Your task to perform on an android device: uninstall "Lyft - Rideshare, Bikes, Scooters & Transit" Image 0: 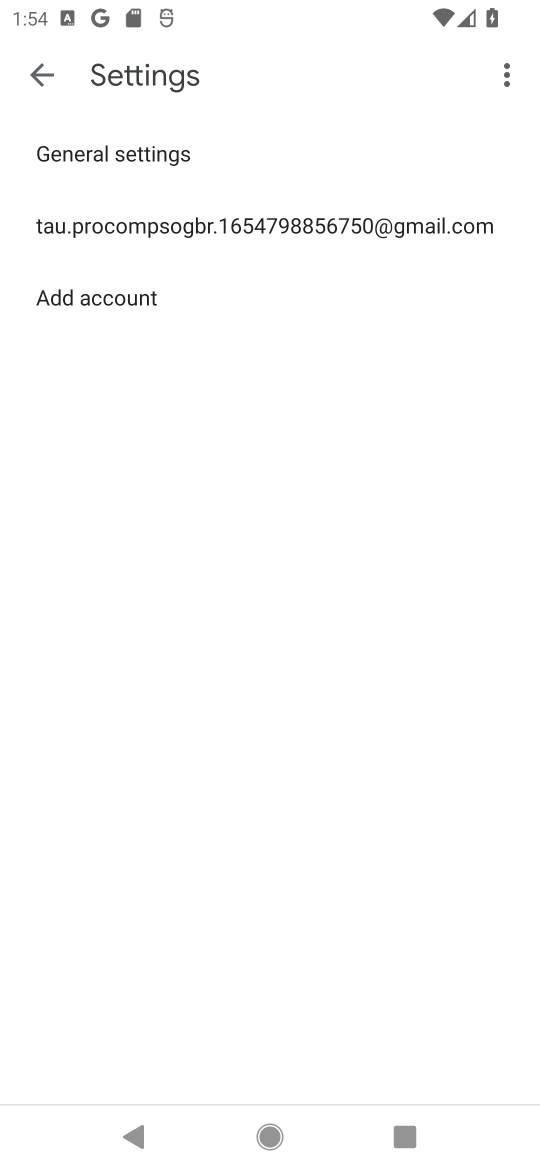
Step 0: press back button
Your task to perform on an android device: uninstall "Lyft - Rideshare, Bikes, Scooters & Transit" Image 1: 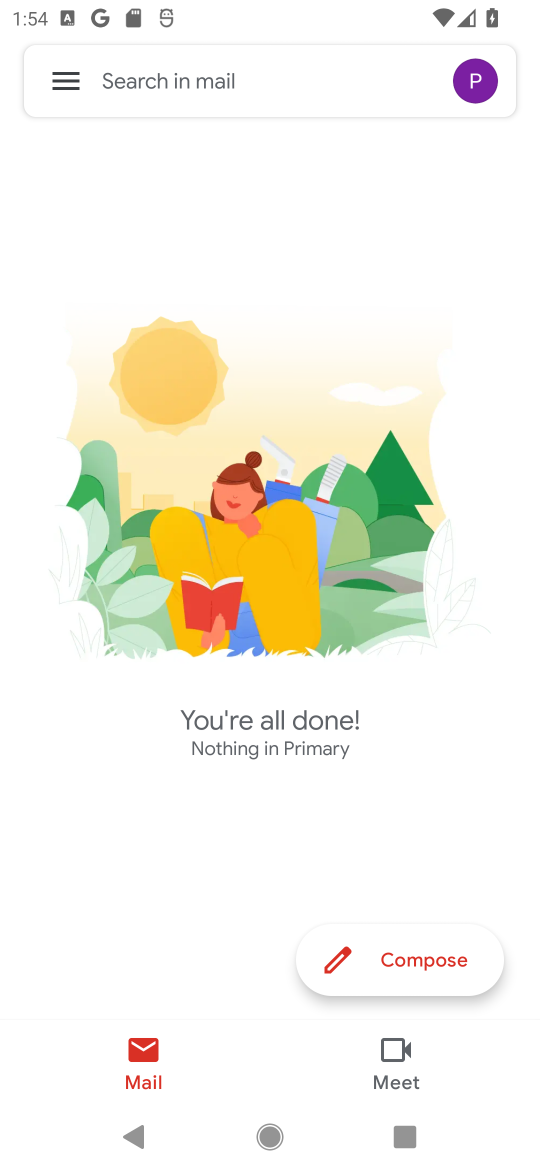
Step 1: press back button
Your task to perform on an android device: uninstall "Lyft - Rideshare, Bikes, Scooters & Transit" Image 2: 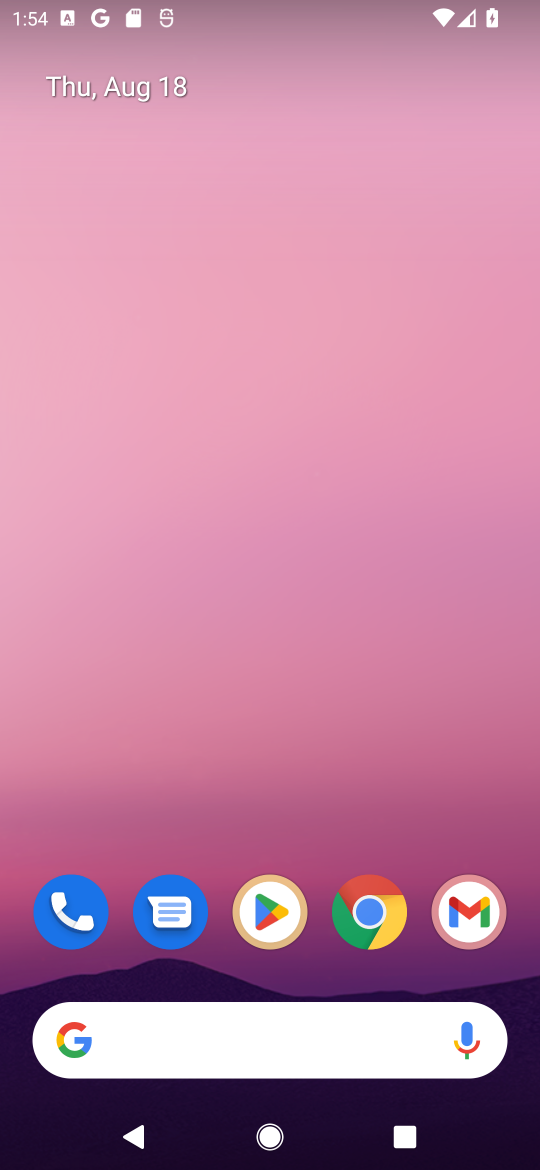
Step 2: click (263, 920)
Your task to perform on an android device: uninstall "Lyft - Rideshare, Bikes, Scooters & Transit" Image 3: 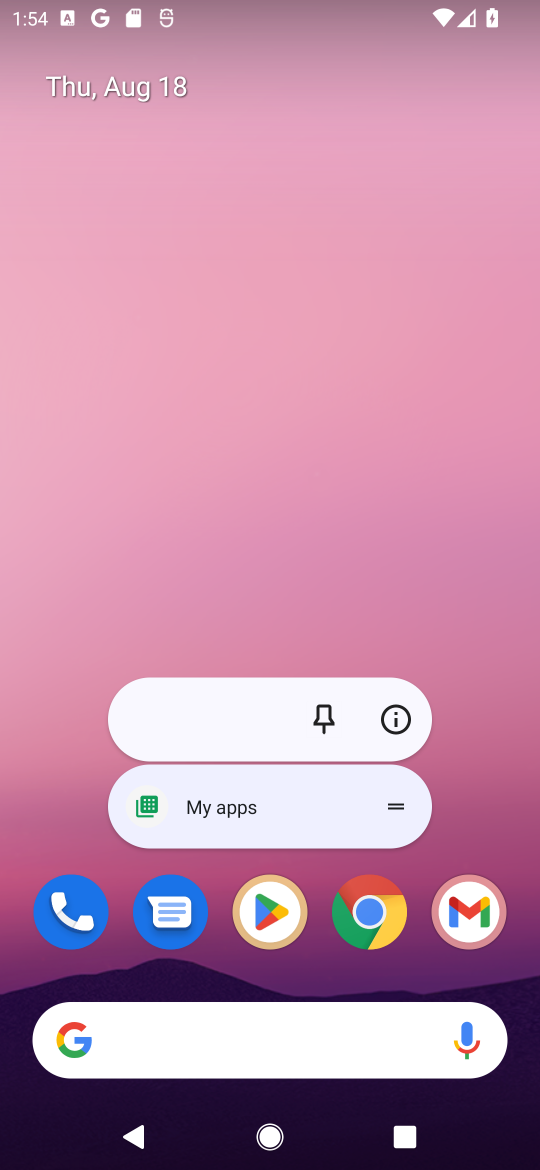
Step 3: click (269, 920)
Your task to perform on an android device: uninstall "Lyft - Rideshare, Bikes, Scooters & Transit" Image 4: 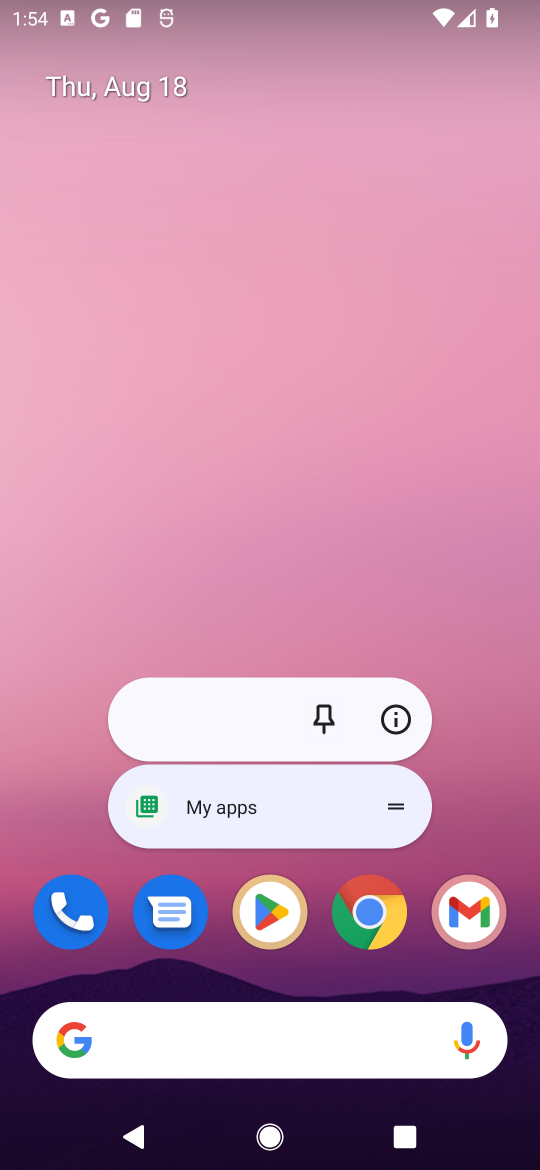
Step 4: click (266, 905)
Your task to perform on an android device: uninstall "Lyft - Rideshare, Bikes, Scooters & Transit" Image 5: 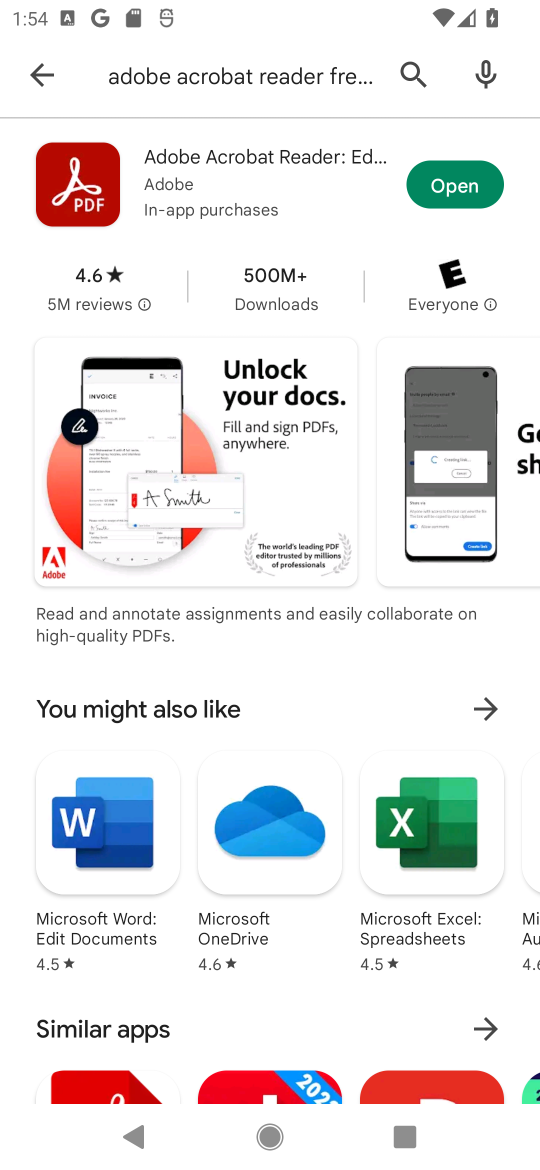
Step 5: click (416, 69)
Your task to perform on an android device: uninstall "Lyft - Rideshare, Bikes, Scooters & Transit" Image 6: 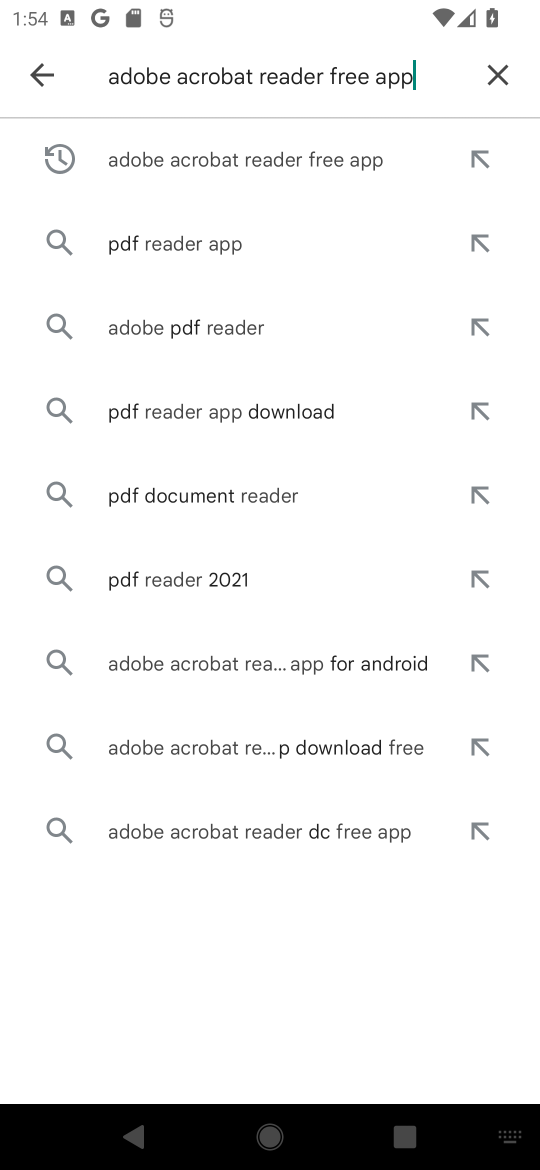
Step 6: click (488, 73)
Your task to perform on an android device: uninstall "Lyft - Rideshare, Bikes, Scooters & Transit" Image 7: 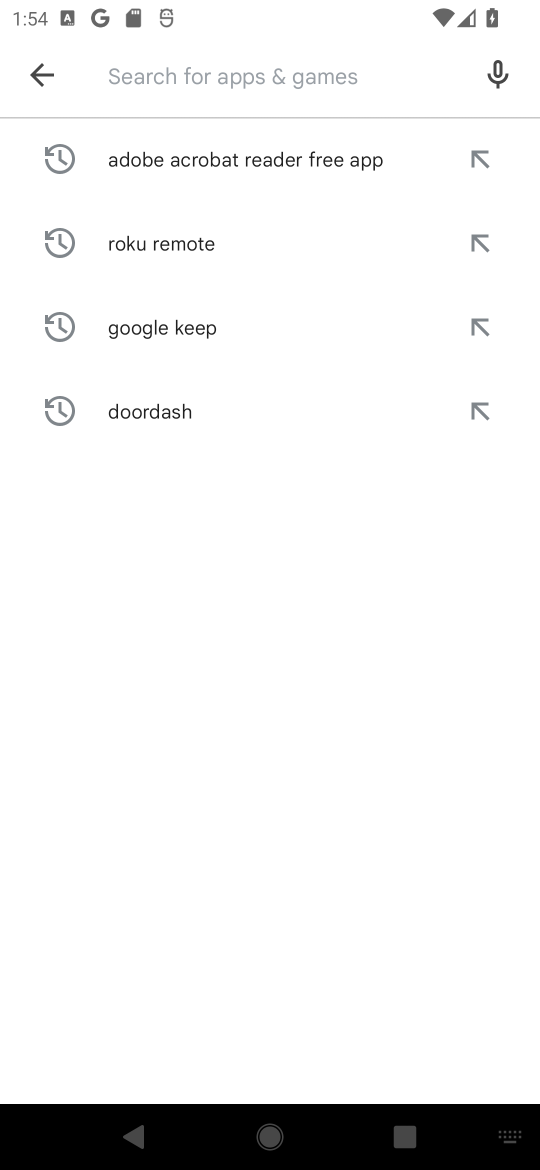
Step 7: click (228, 84)
Your task to perform on an android device: uninstall "Lyft - Rideshare, Bikes, Scooters & Transit" Image 8: 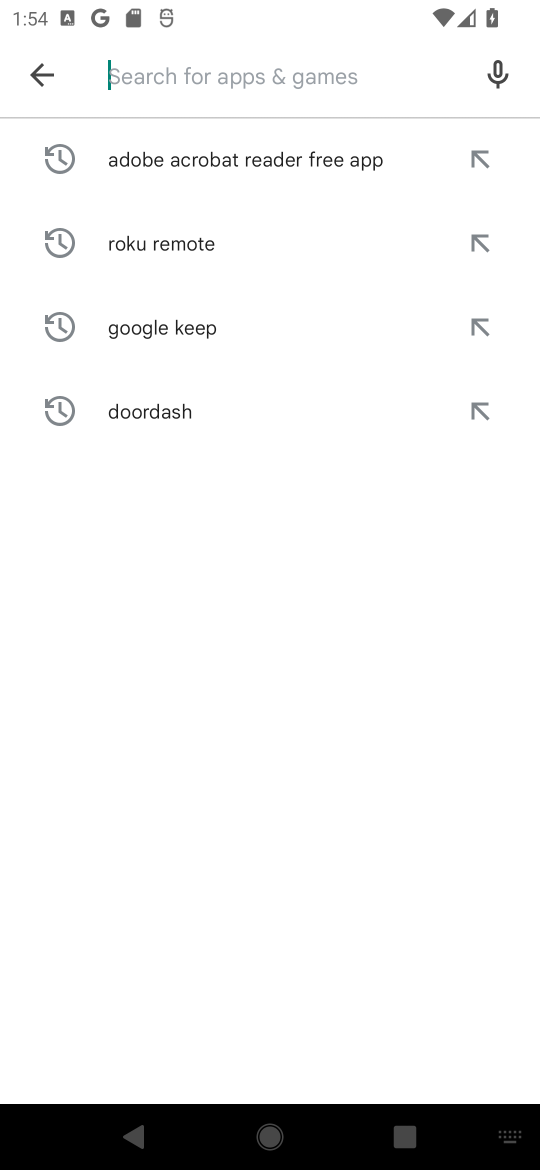
Step 8: type "lyft"
Your task to perform on an android device: uninstall "Lyft - Rideshare, Bikes, Scooters & Transit" Image 9: 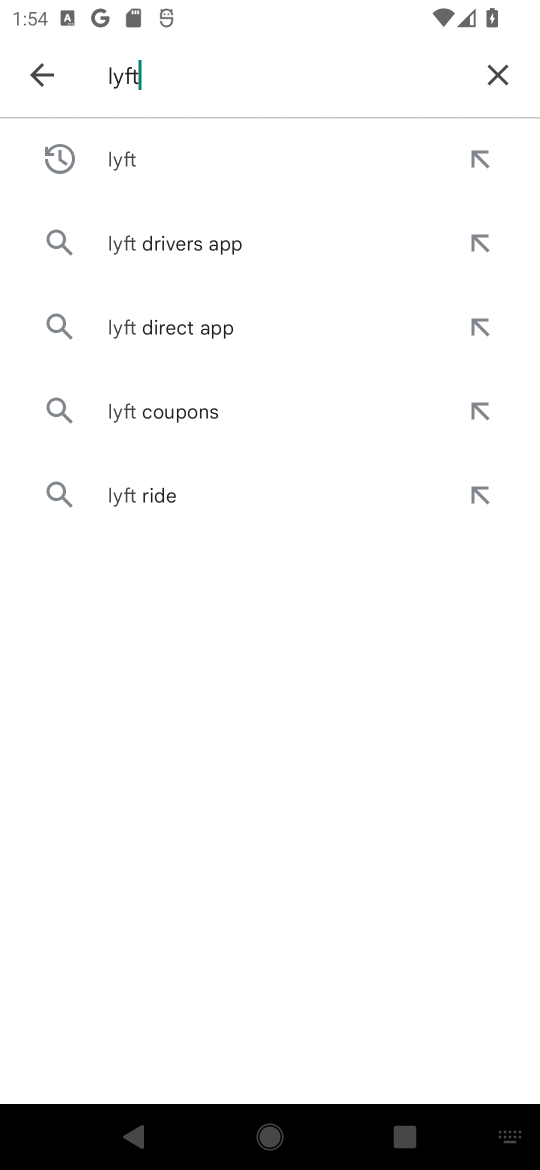
Step 9: click (110, 149)
Your task to perform on an android device: uninstall "Lyft - Rideshare, Bikes, Scooters & Transit" Image 10: 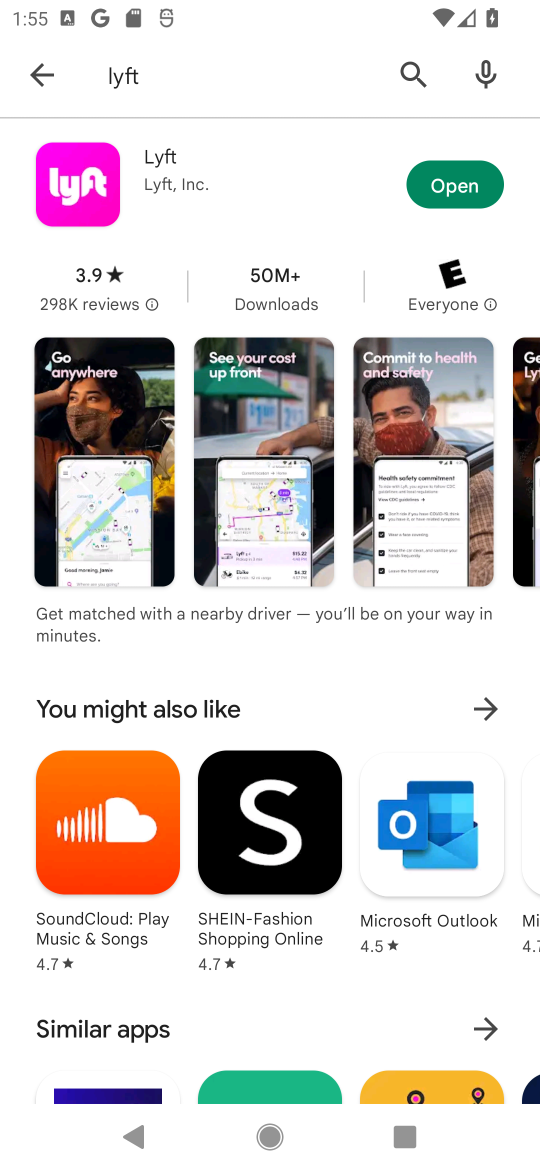
Step 10: click (167, 161)
Your task to perform on an android device: uninstall "Lyft - Rideshare, Bikes, Scooters & Transit" Image 11: 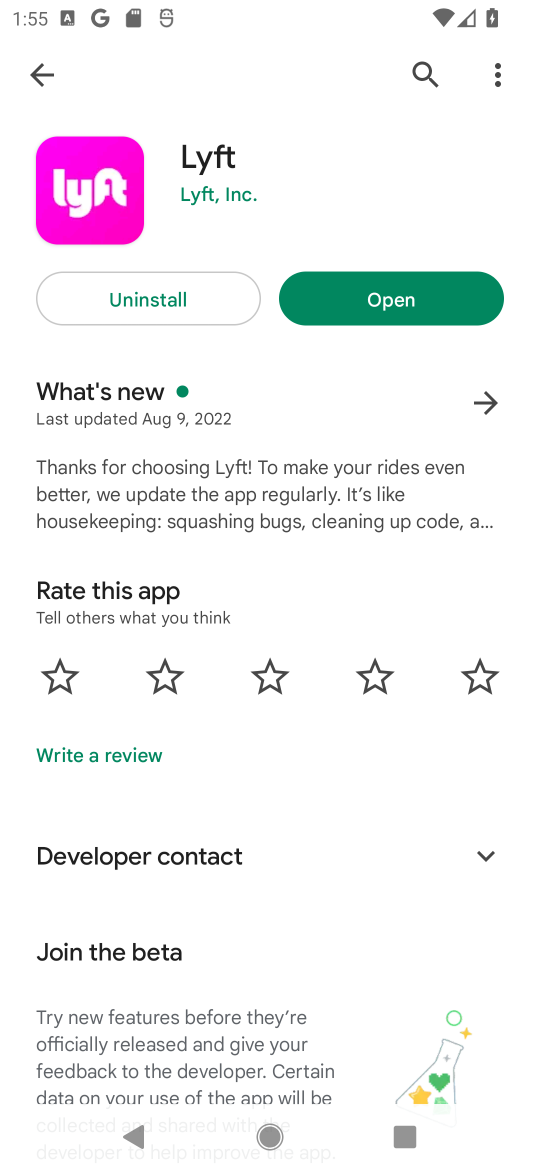
Step 11: click (176, 296)
Your task to perform on an android device: uninstall "Lyft - Rideshare, Bikes, Scooters & Transit" Image 12: 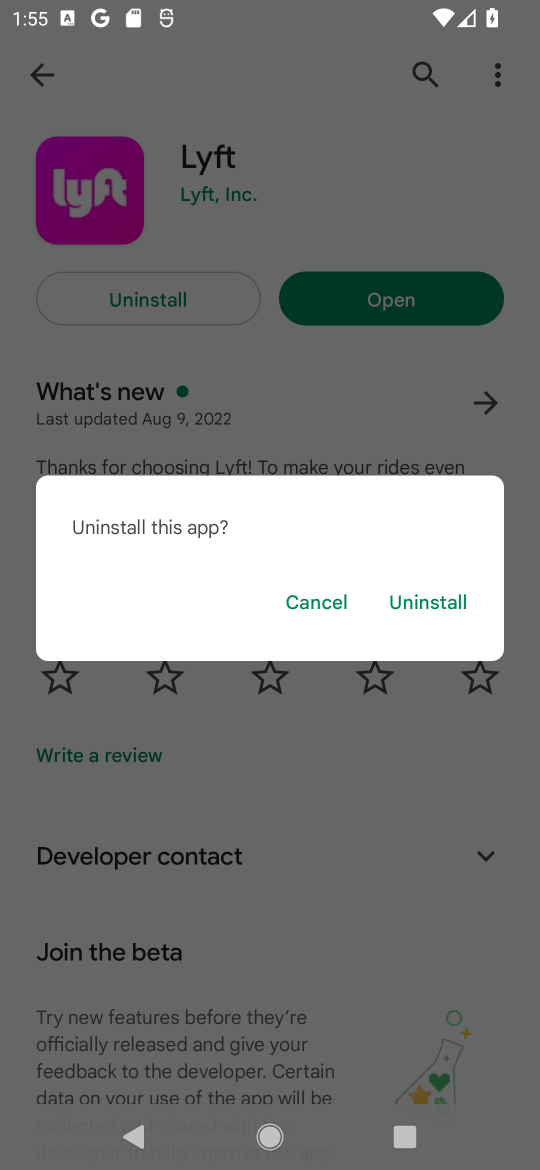
Step 12: click (437, 591)
Your task to perform on an android device: uninstall "Lyft - Rideshare, Bikes, Scooters & Transit" Image 13: 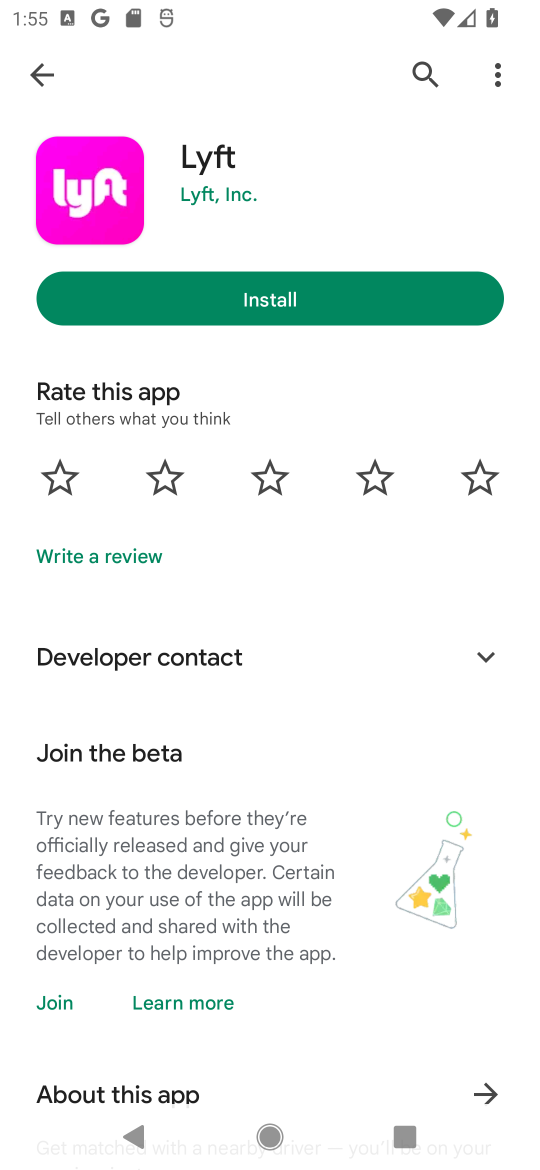
Step 13: task complete